Your task to perform on an android device: Open Yahoo.com Image 0: 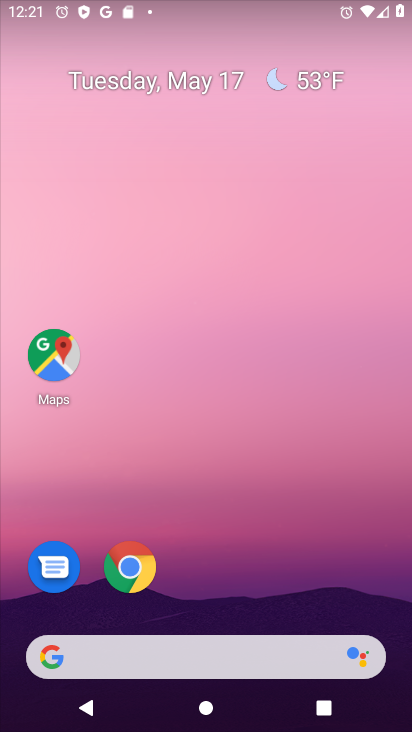
Step 0: drag from (355, 592) to (349, 185)
Your task to perform on an android device: Open Yahoo.com Image 1: 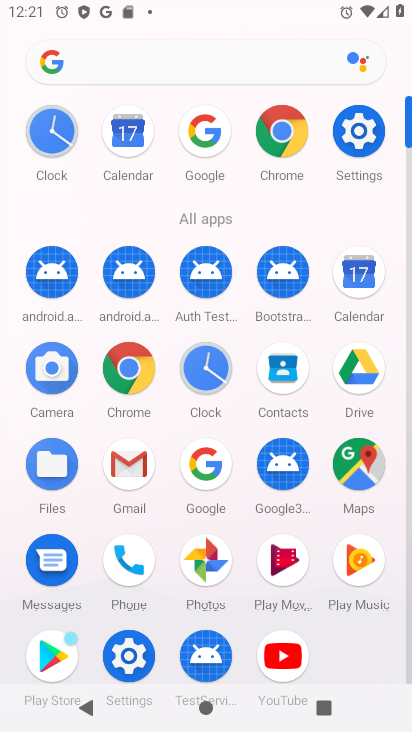
Step 1: click (283, 146)
Your task to perform on an android device: Open Yahoo.com Image 2: 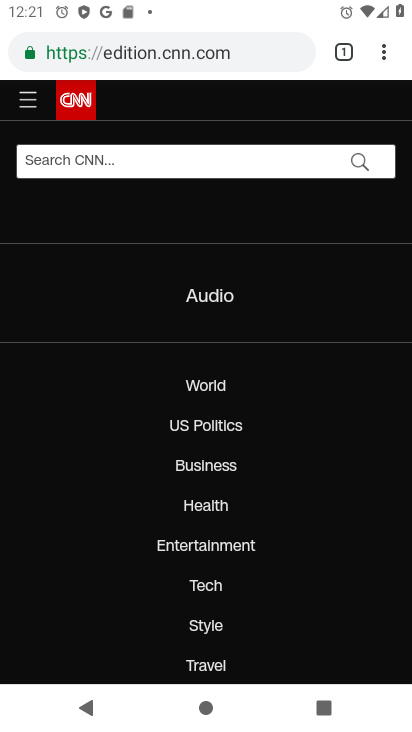
Step 2: click (261, 64)
Your task to perform on an android device: Open Yahoo.com Image 3: 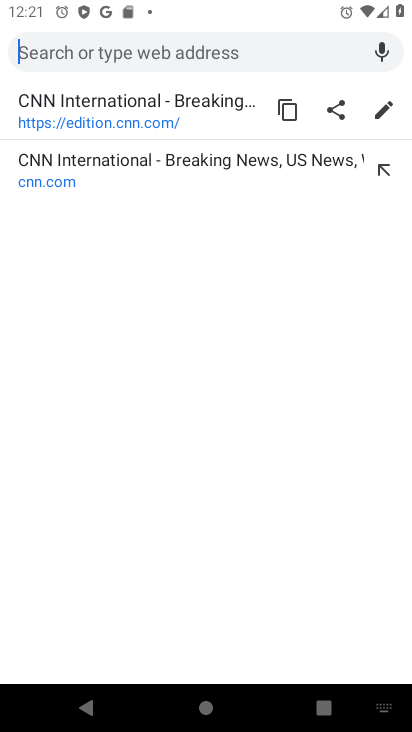
Step 3: type "yahoo.com"
Your task to perform on an android device: Open Yahoo.com Image 4: 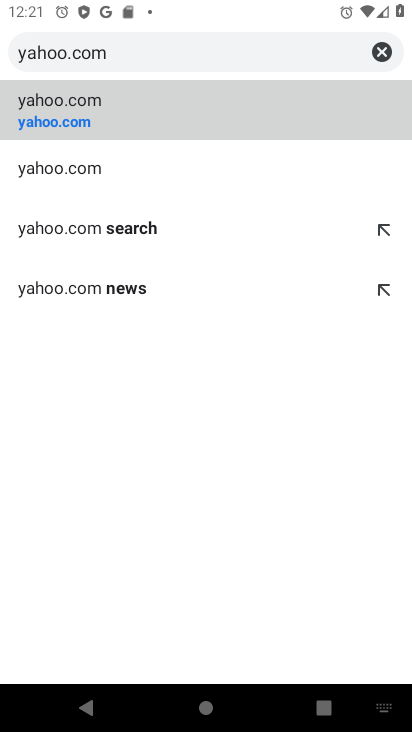
Step 4: click (124, 115)
Your task to perform on an android device: Open Yahoo.com Image 5: 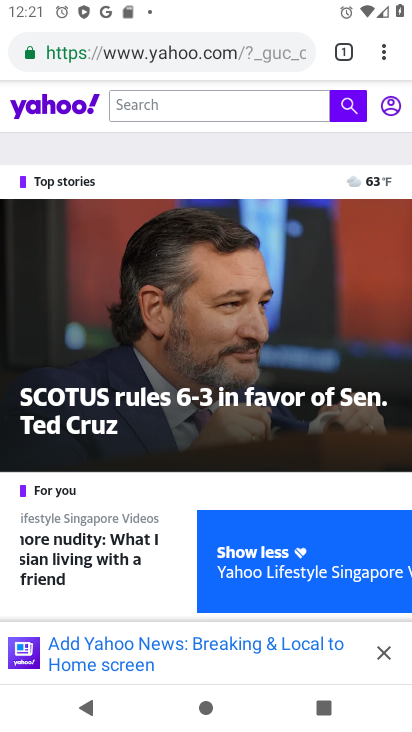
Step 5: task complete